Your task to perform on an android device: Open the stopwatch Image 0: 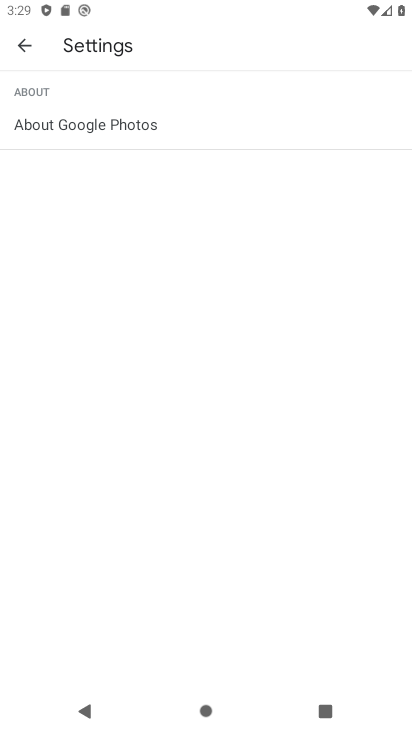
Step 0: drag from (277, 485) to (233, 154)
Your task to perform on an android device: Open the stopwatch Image 1: 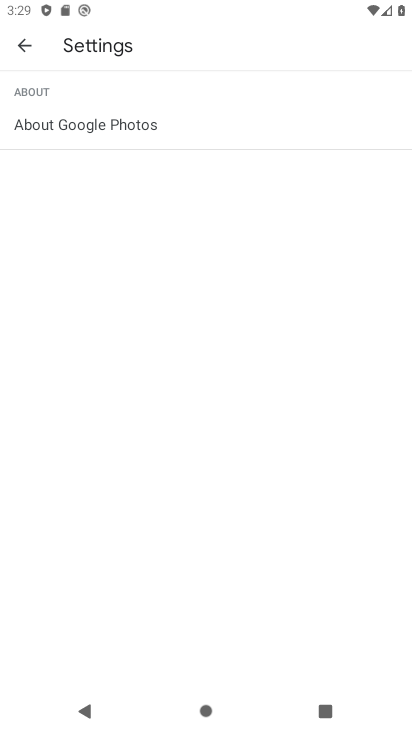
Step 1: press home button
Your task to perform on an android device: Open the stopwatch Image 2: 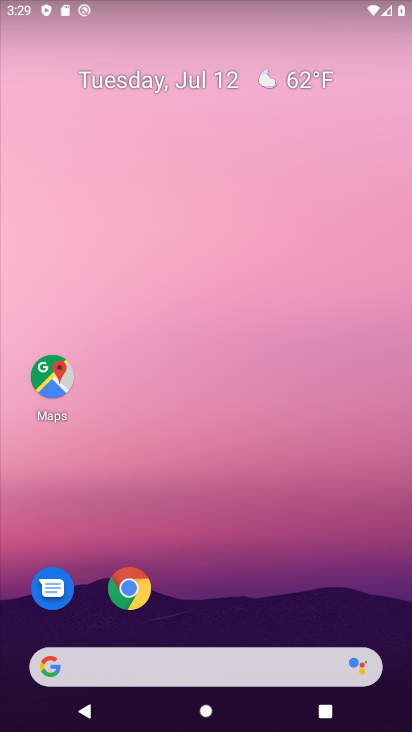
Step 2: drag from (161, 629) to (163, 101)
Your task to perform on an android device: Open the stopwatch Image 3: 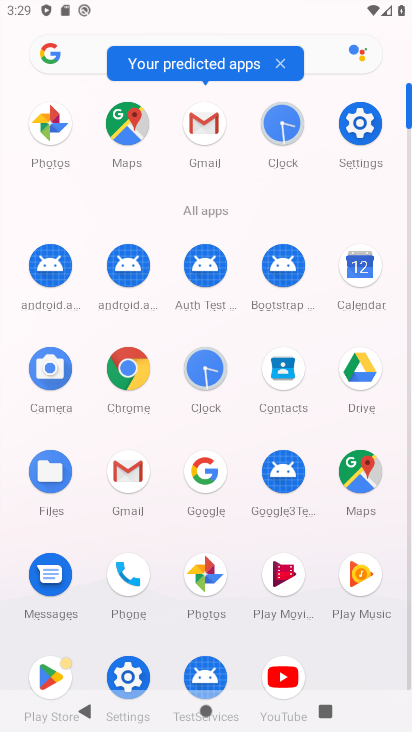
Step 3: click (212, 380)
Your task to perform on an android device: Open the stopwatch Image 4: 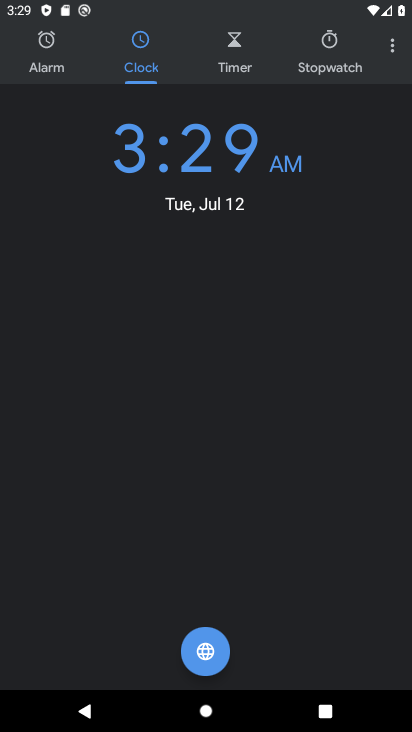
Step 4: click (356, 51)
Your task to perform on an android device: Open the stopwatch Image 5: 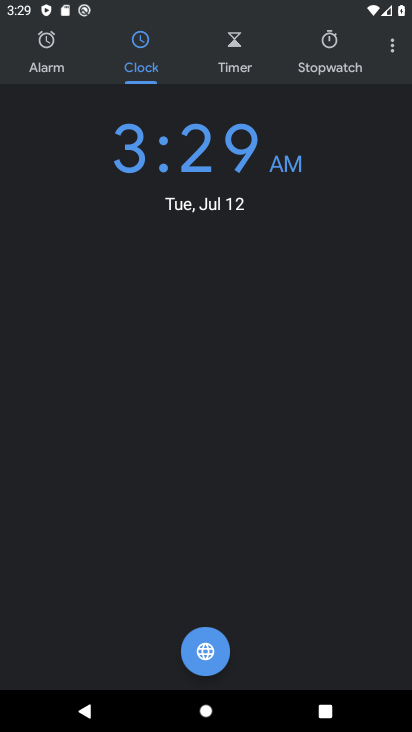
Step 5: click (337, 70)
Your task to perform on an android device: Open the stopwatch Image 6: 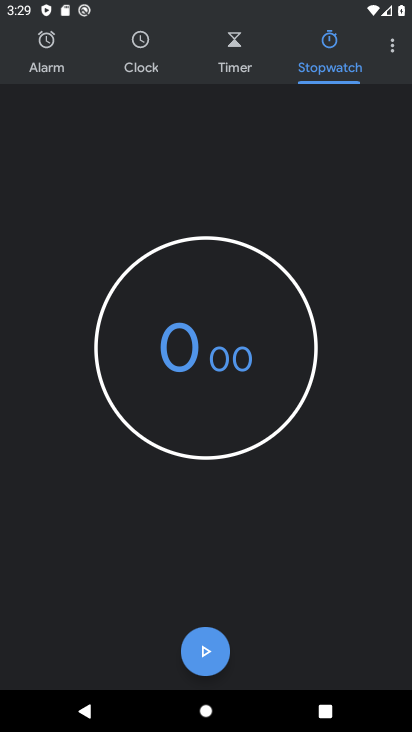
Step 6: click (209, 654)
Your task to perform on an android device: Open the stopwatch Image 7: 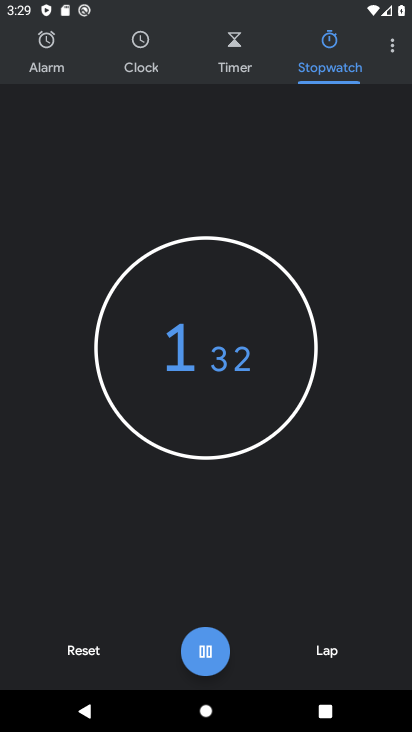
Step 7: task complete